Your task to perform on an android device: find snoozed emails in the gmail app Image 0: 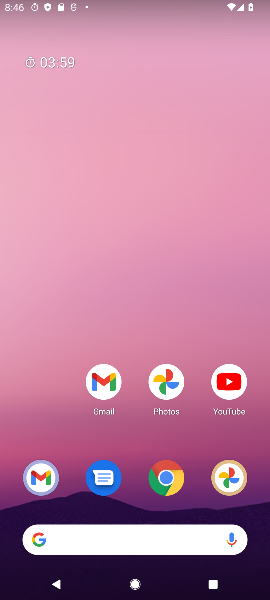
Step 0: press home button
Your task to perform on an android device: find snoozed emails in the gmail app Image 1: 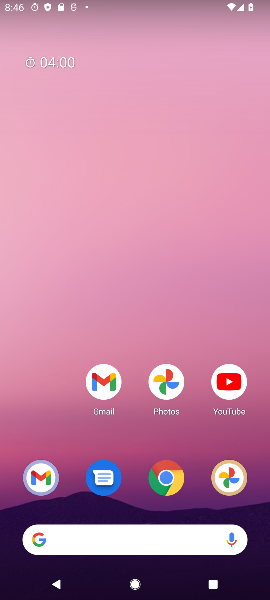
Step 1: drag from (168, 535) to (177, 262)
Your task to perform on an android device: find snoozed emails in the gmail app Image 2: 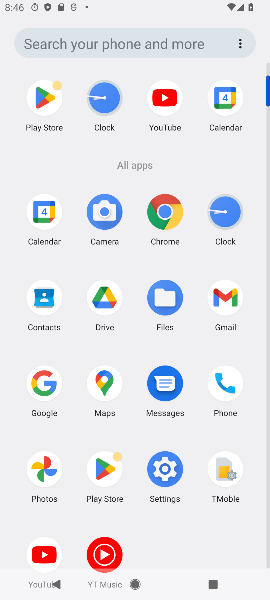
Step 2: click (227, 318)
Your task to perform on an android device: find snoozed emails in the gmail app Image 3: 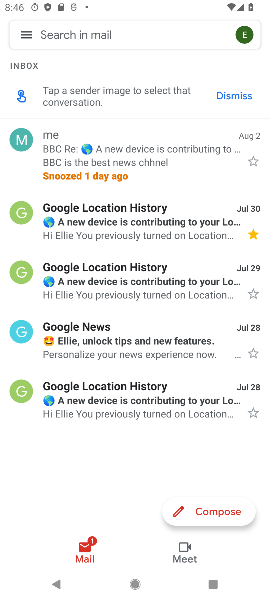
Step 3: click (26, 34)
Your task to perform on an android device: find snoozed emails in the gmail app Image 4: 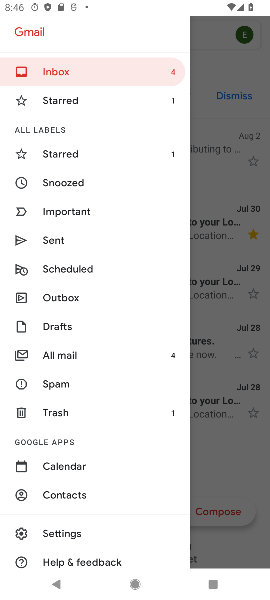
Step 4: click (49, 181)
Your task to perform on an android device: find snoozed emails in the gmail app Image 5: 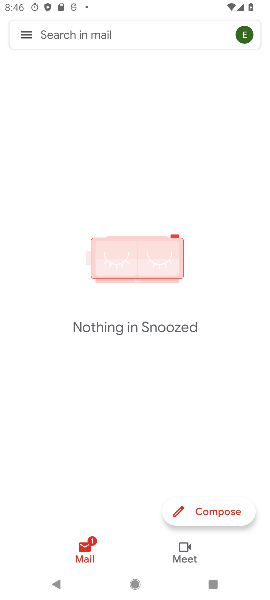
Step 5: task complete